Your task to perform on an android device: See recent photos Image 0: 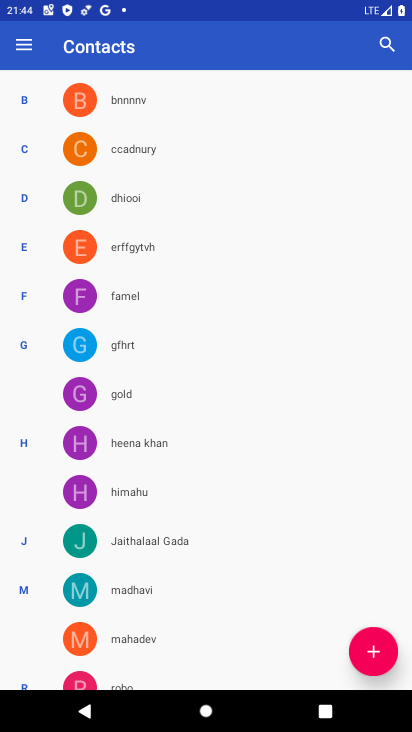
Step 0: press home button
Your task to perform on an android device: See recent photos Image 1: 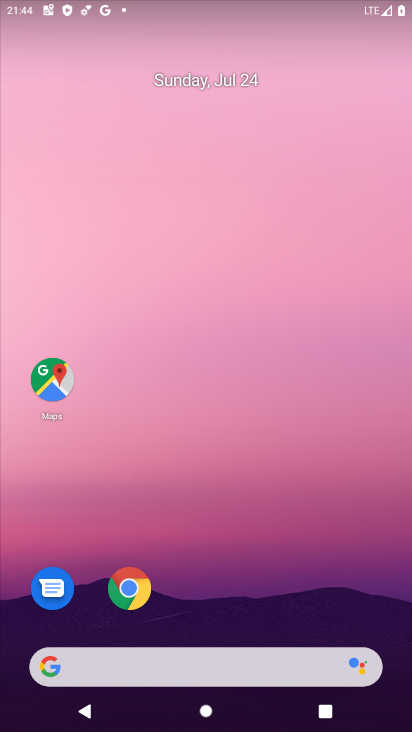
Step 1: drag from (190, 659) to (166, 133)
Your task to perform on an android device: See recent photos Image 2: 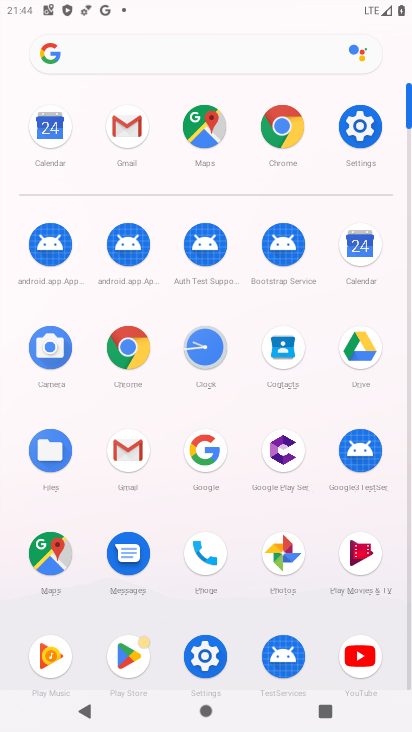
Step 2: click (276, 543)
Your task to perform on an android device: See recent photos Image 3: 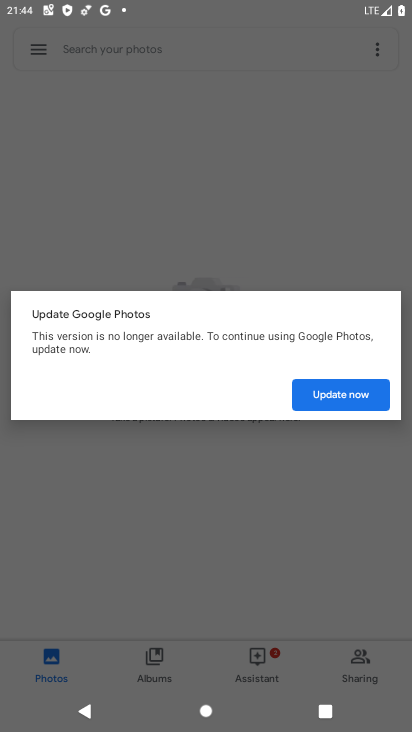
Step 3: click (331, 401)
Your task to perform on an android device: See recent photos Image 4: 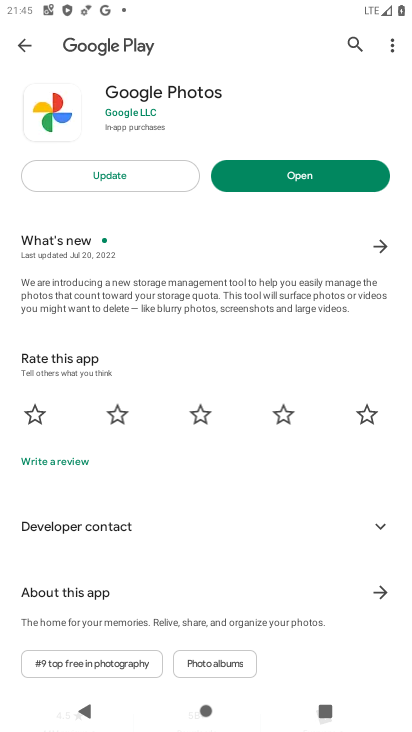
Step 4: click (144, 178)
Your task to perform on an android device: See recent photos Image 5: 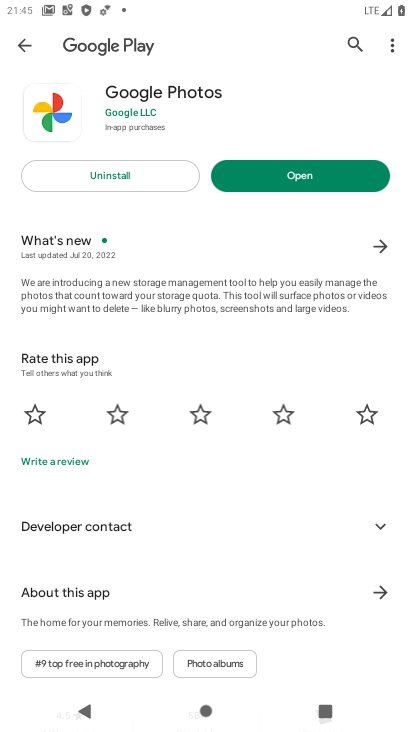
Step 5: click (269, 183)
Your task to perform on an android device: See recent photos Image 6: 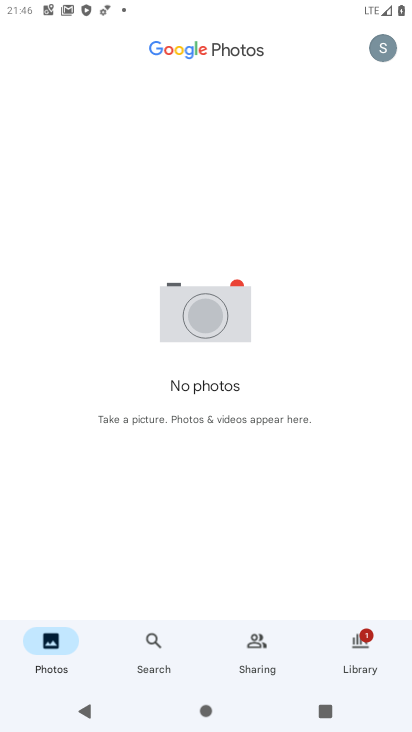
Step 6: task complete